Your task to perform on an android device: Open Wikipedia Image 0: 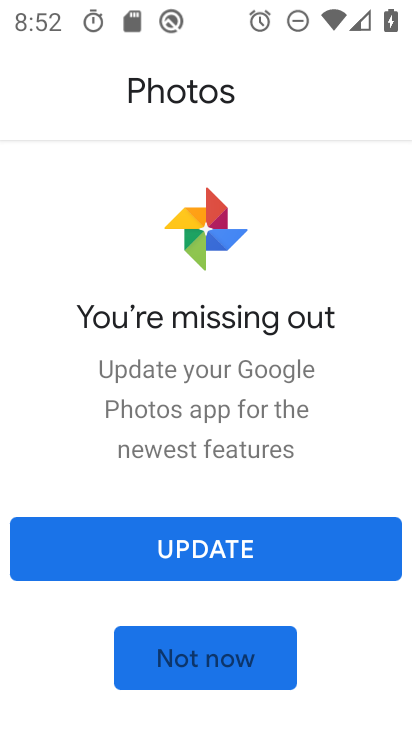
Step 0: press home button
Your task to perform on an android device: Open Wikipedia Image 1: 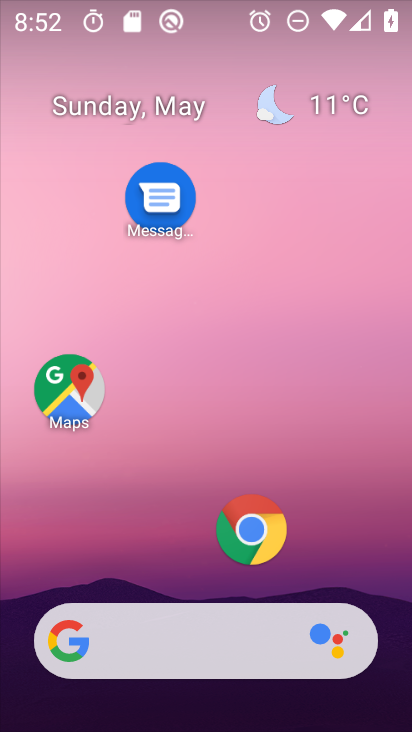
Step 1: click (248, 524)
Your task to perform on an android device: Open Wikipedia Image 2: 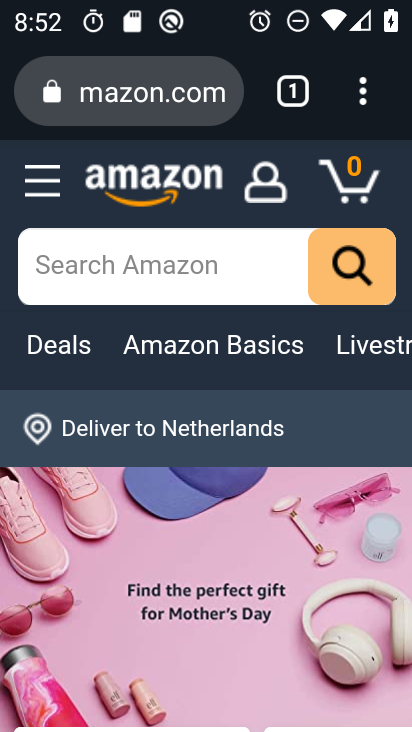
Step 2: press back button
Your task to perform on an android device: Open Wikipedia Image 3: 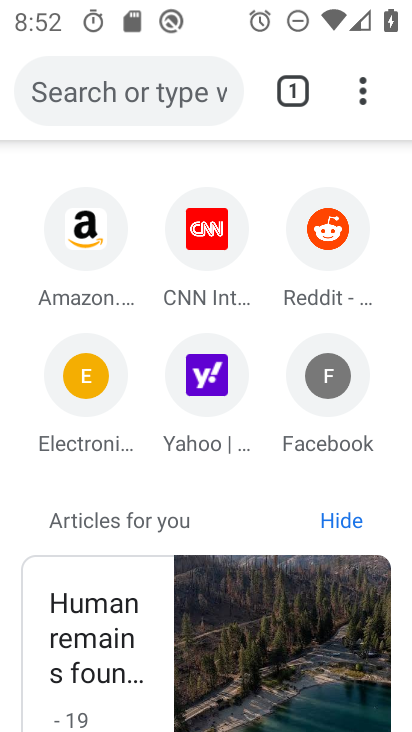
Step 3: click (120, 82)
Your task to perform on an android device: Open Wikipedia Image 4: 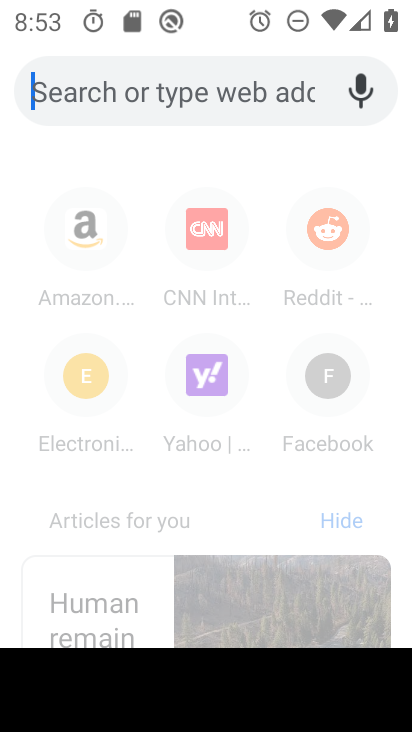
Step 4: type "wikipedia.com"
Your task to perform on an android device: Open Wikipedia Image 5: 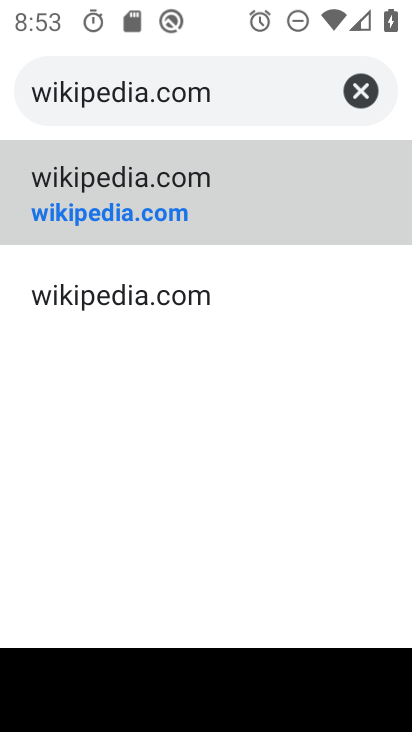
Step 5: click (166, 193)
Your task to perform on an android device: Open Wikipedia Image 6: 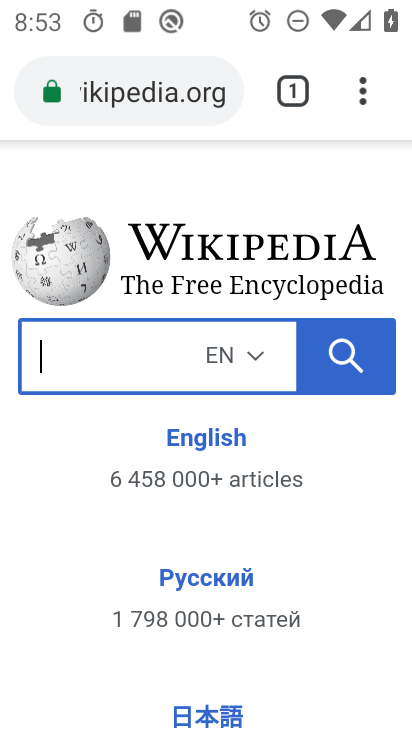
Step 6: task complete